Your task to perform on an android device: Open Yahoo.com Image 0: 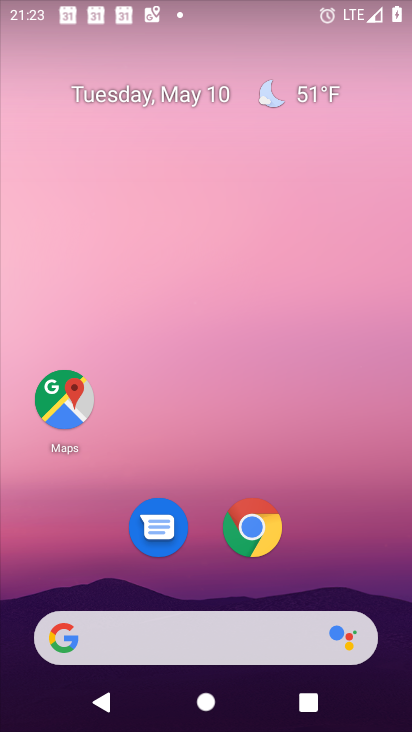
Step 0: click (266, 523)
Your task to perform on an android device: Open Yahoo.com Image 1: 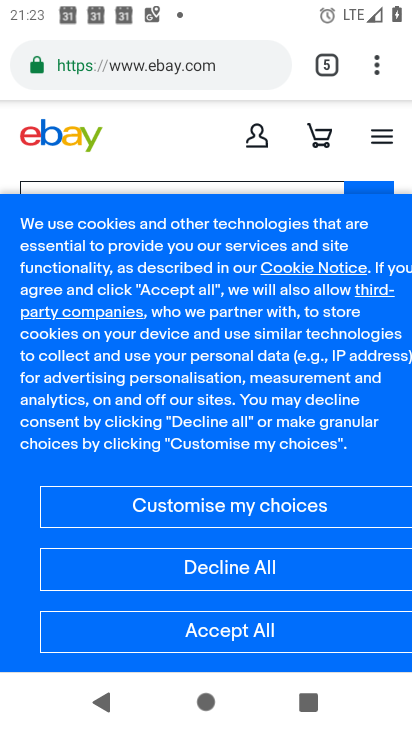
Step 1: click (327, 55)
Your task to perform on an android device: Open Yahoo.com Image 2: 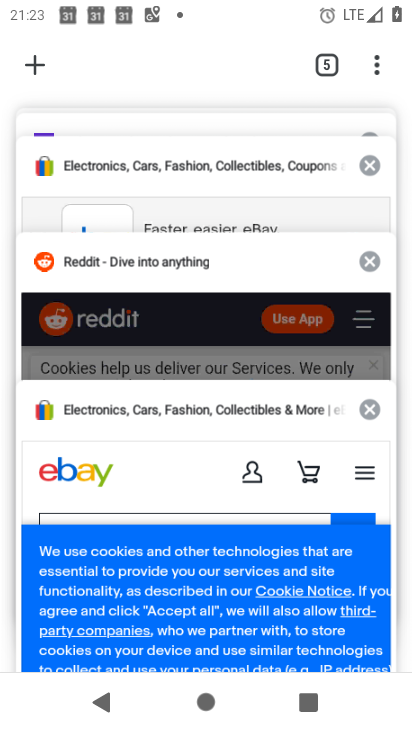
Step 2: click (43, 64)
Your task to perform on an android device: Open Yahoo.com Image 3: 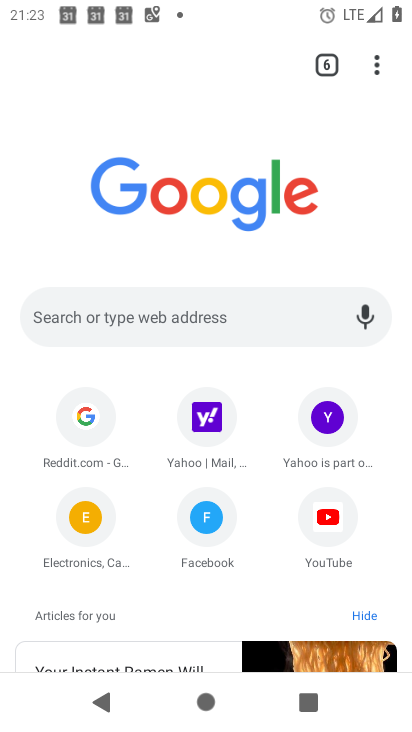
Step 3: click (223, 422)
Your task to perform on an android device: Open Yahoo.com Image 4: 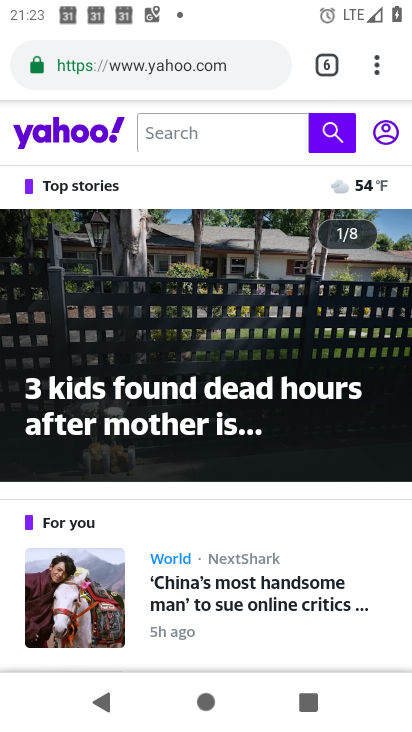
Step 4: task complete